Your task to perform on an android device: Open the web browser Image 0: 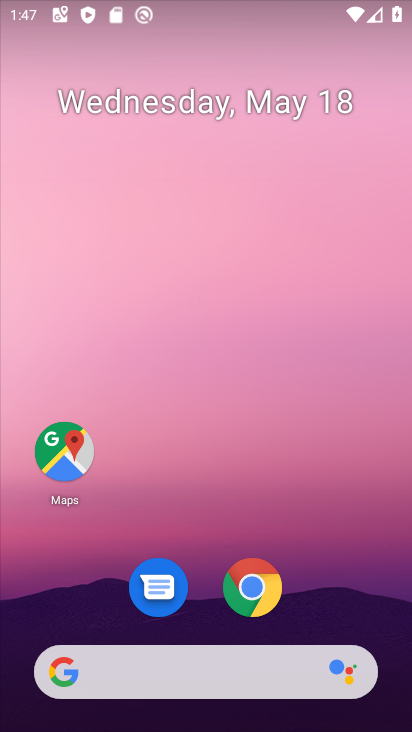
Step 0: click (256, 591)
Your task to perform on an android device: Open the web browser Image 1: 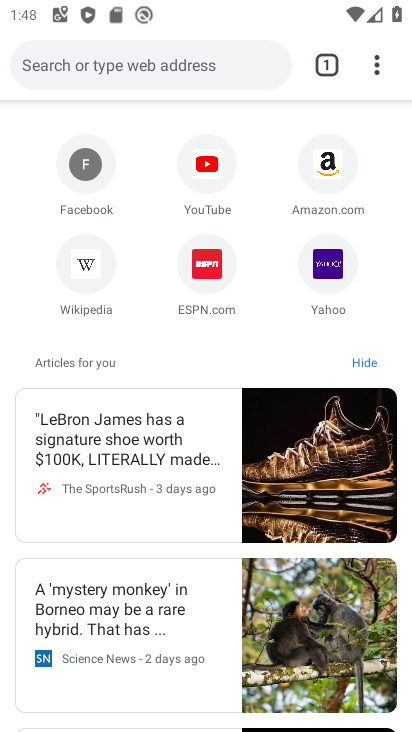
Step 1: task complete